Your task to perform on an android device: Go to privacy settings Image 0: 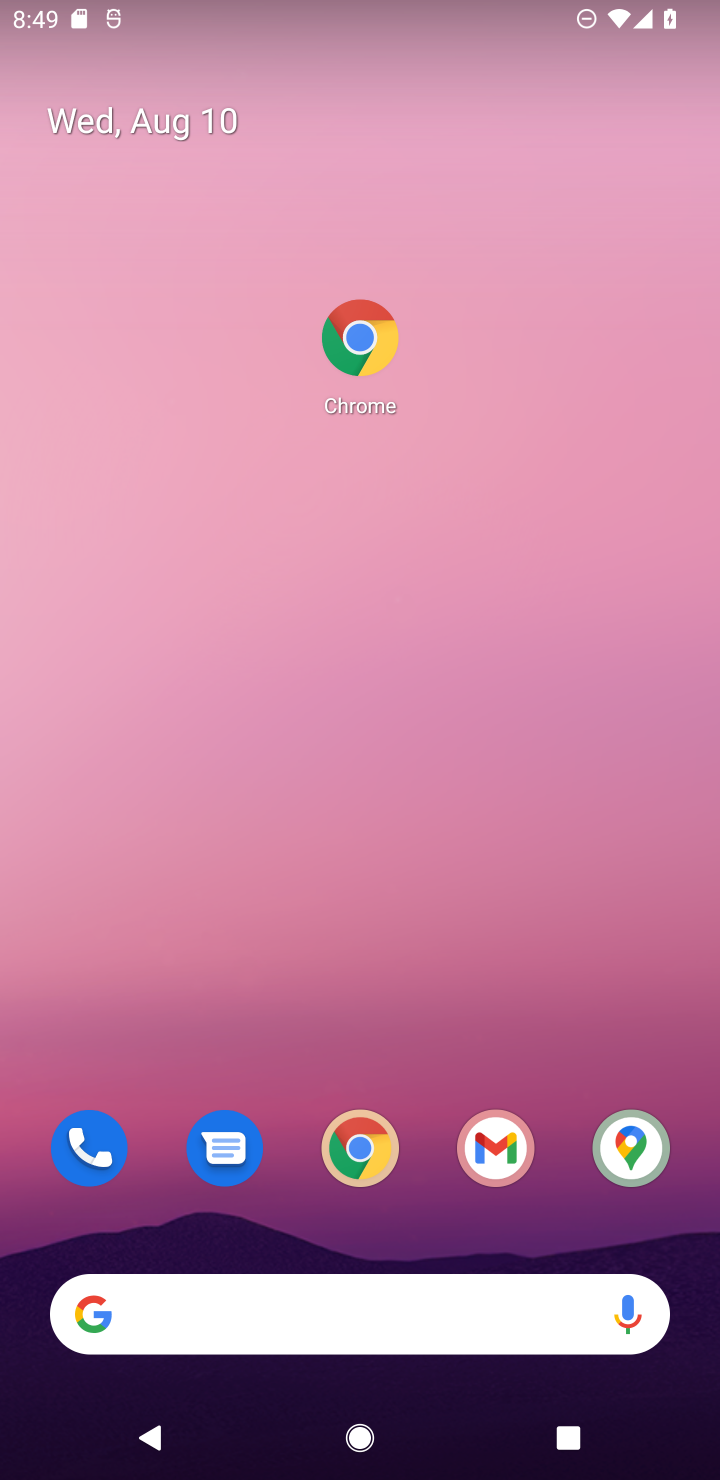
Step 0: drag from (384, 1205) to (258, 174)
Your task to perform on an android device: Go to privacy settings Image 1: 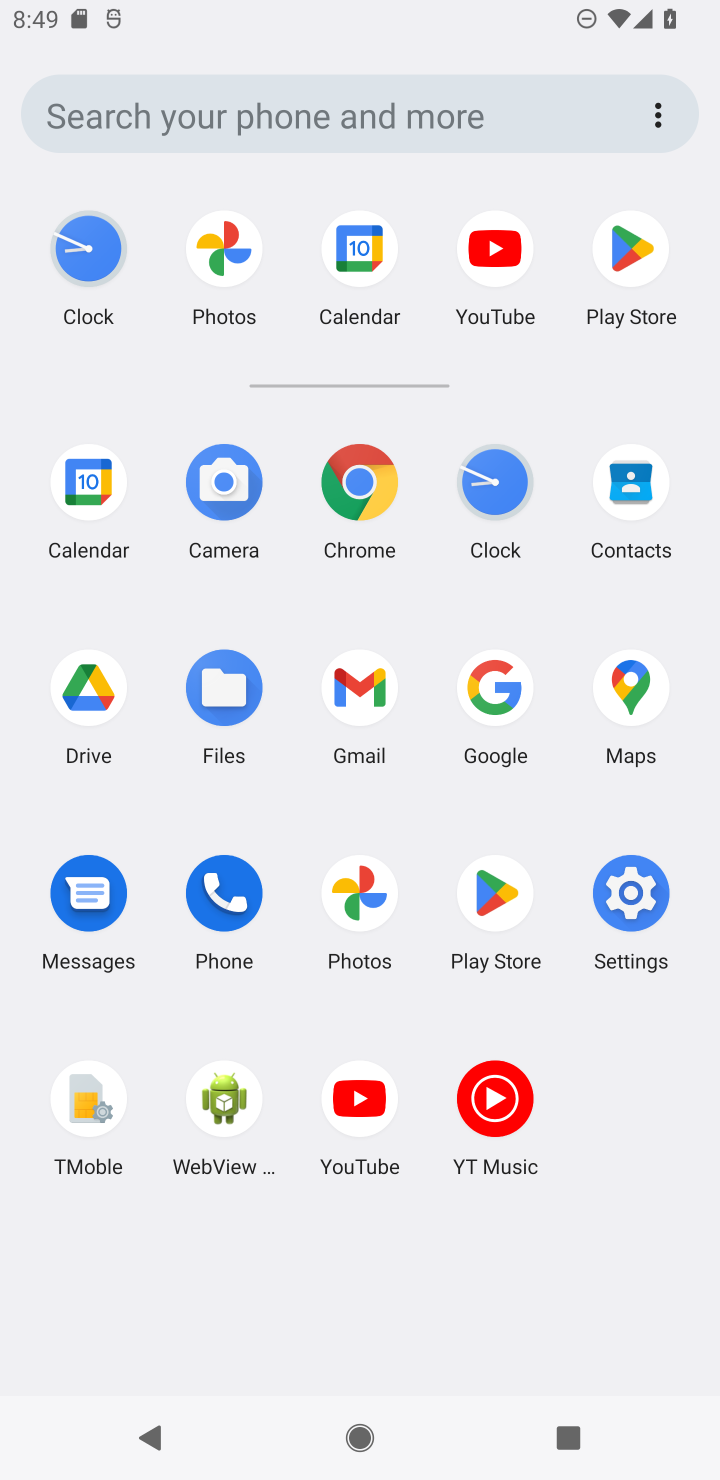
Step 1: click (645, 879)
Your task to perform on an android device: Go to privacy settings Image 2: 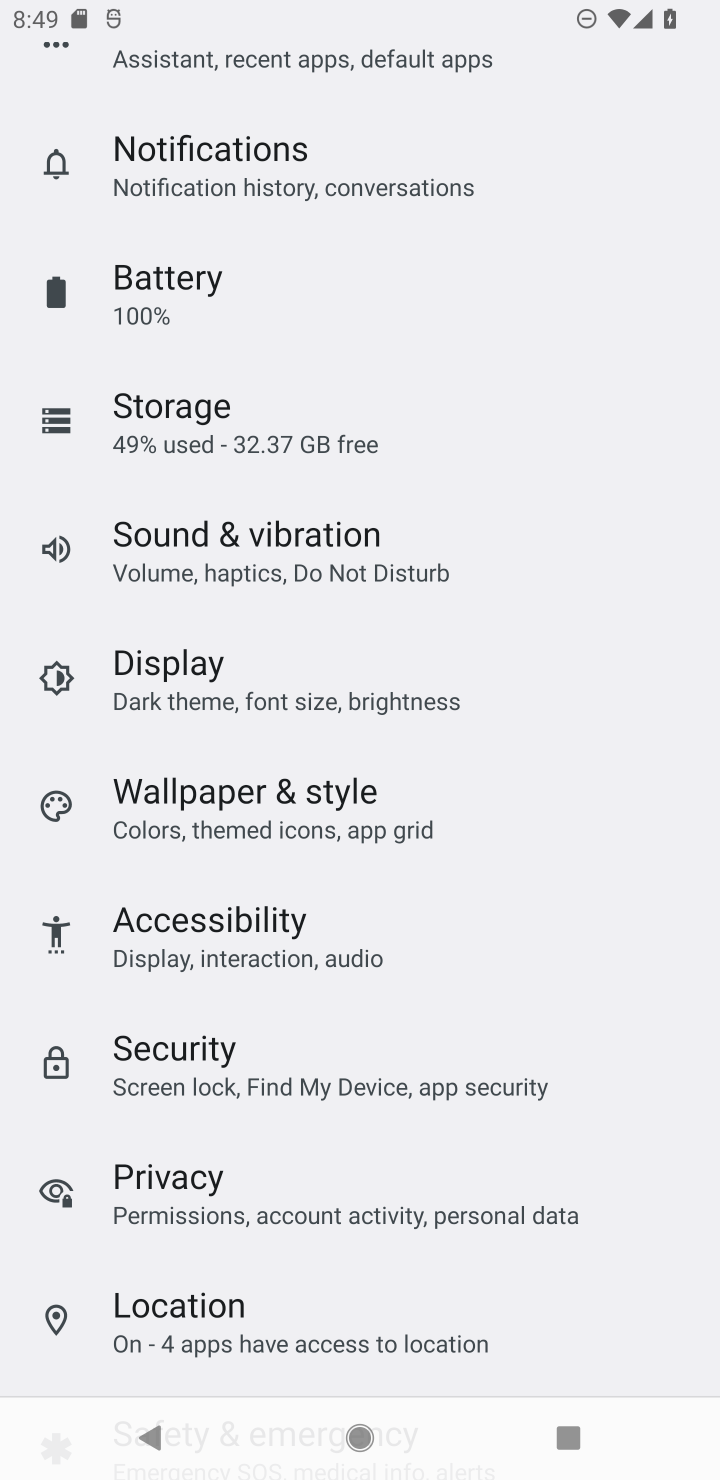
Step 2: click (252, 1197)
Your task to perform on an android device: Go to privacy settings Image 3: 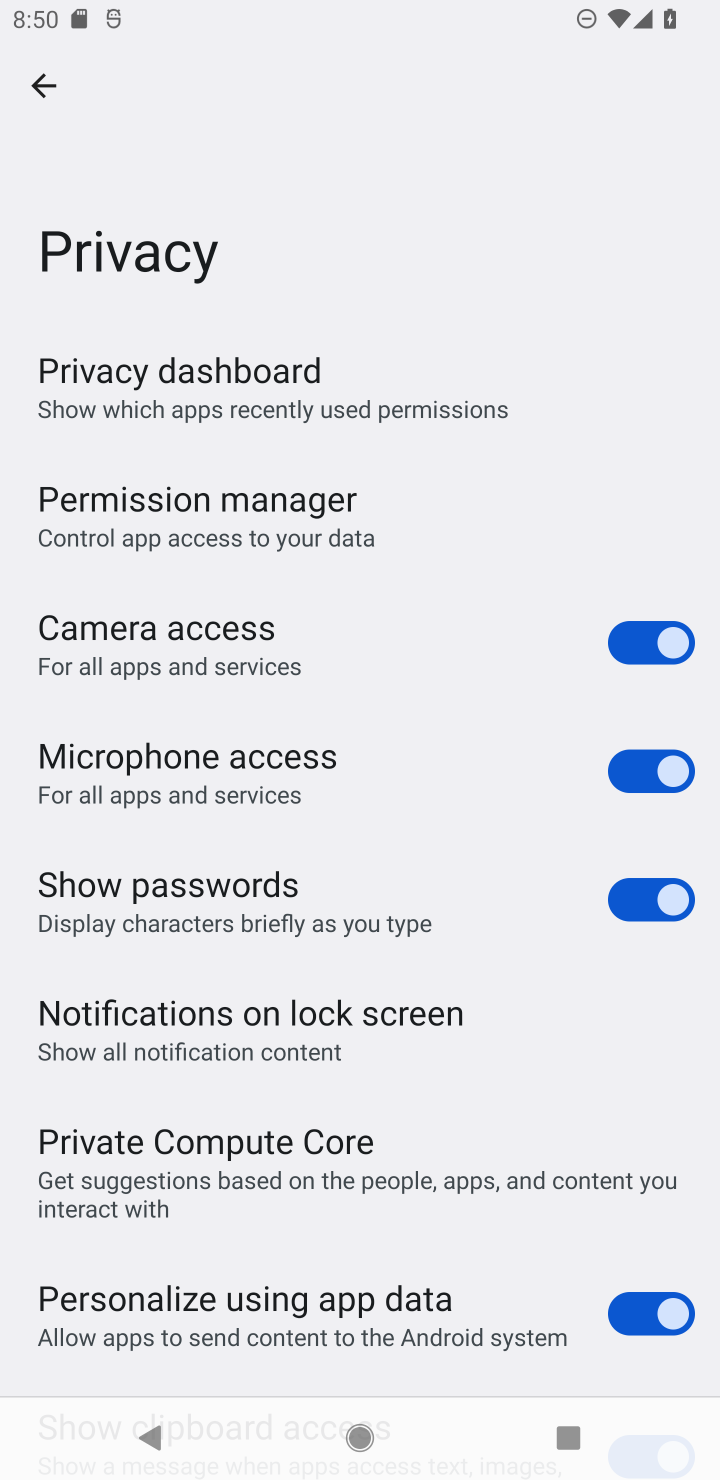
Step 3: task complete